Your task to perform on an android device: turn on bluetooth scan Image 0: 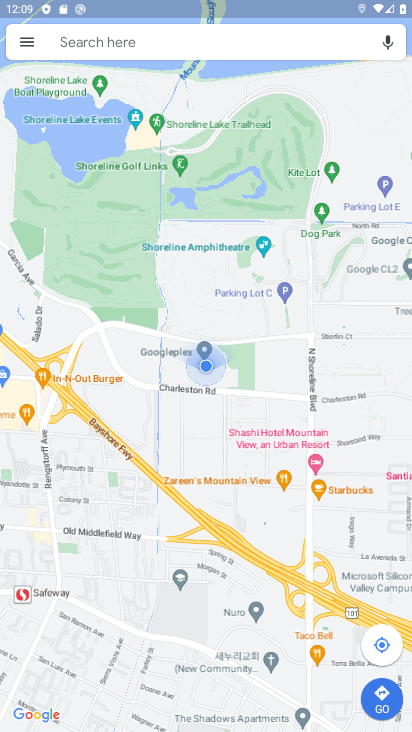
Step 0: press home button
Your task to perform on an android device: turn on bluetooth scan Image 1: 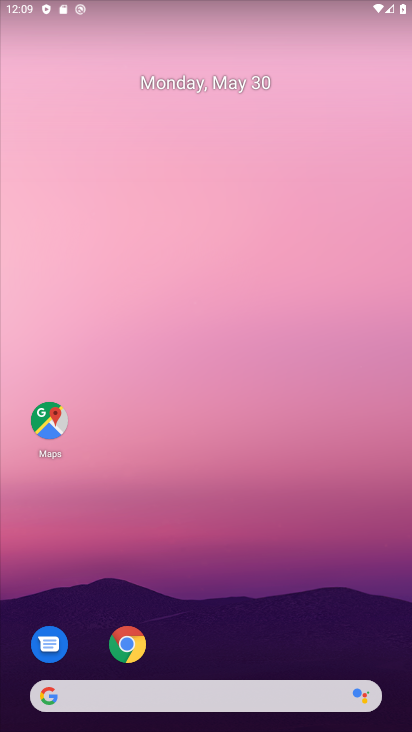
Step 1: drag from (212, 651) to (247, 82)
Your task to perform on an android device: turn on bluetooth scan Image 2: 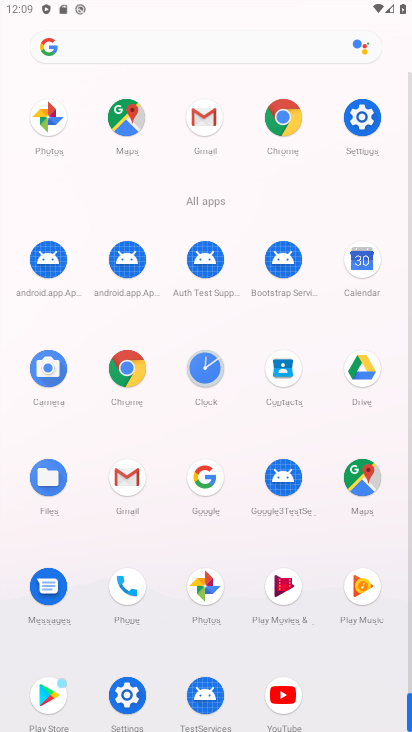
Step 2: drag from (188, 610) to (229, 386)
Your task to perform on an android device: turn on bluetooth scan Image 3: 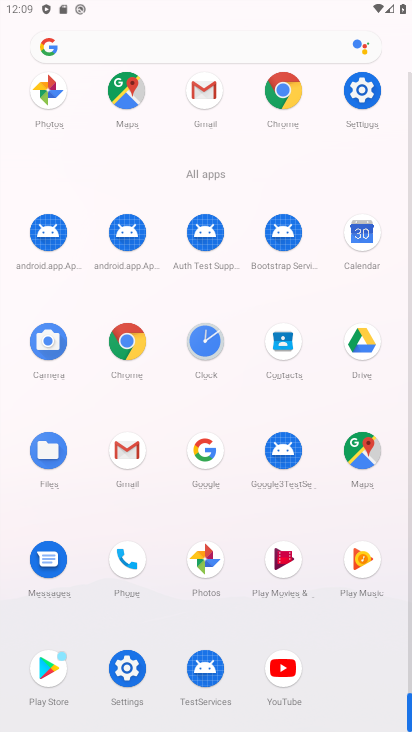
Step 3: click (134, 673)
Your task to perform on an android device: turn on bluetooth scan Image 4: 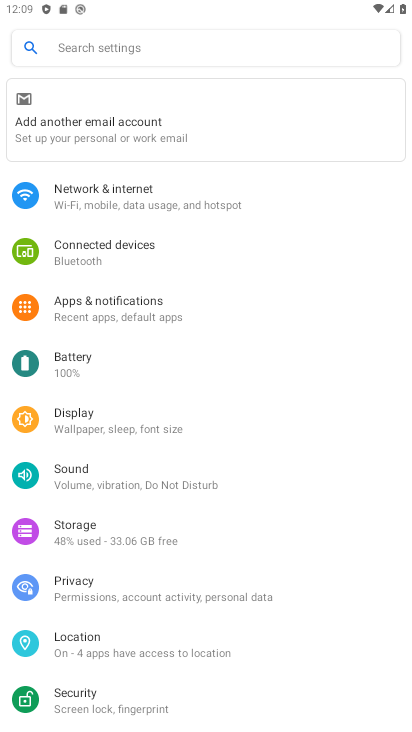
Step 4: click (165, 252)
Your task to perform on an android device: turn on bluetooth scan Image 5: 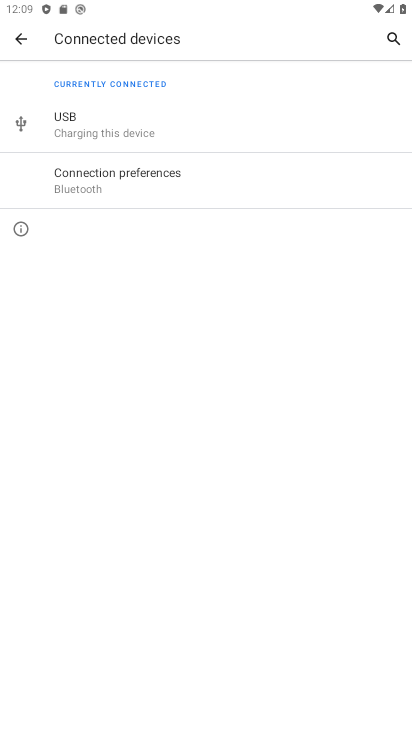
Step 5: click (183, 175)
Your task to perform on an android device: turn on bluetooth scan Image 6: 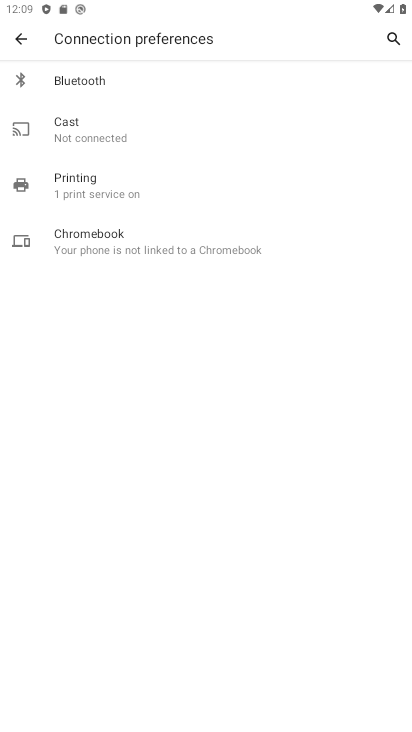
Step 6: click (160, 81)
Your task to perform on an android device: turn on bluetooth scan Image 7: 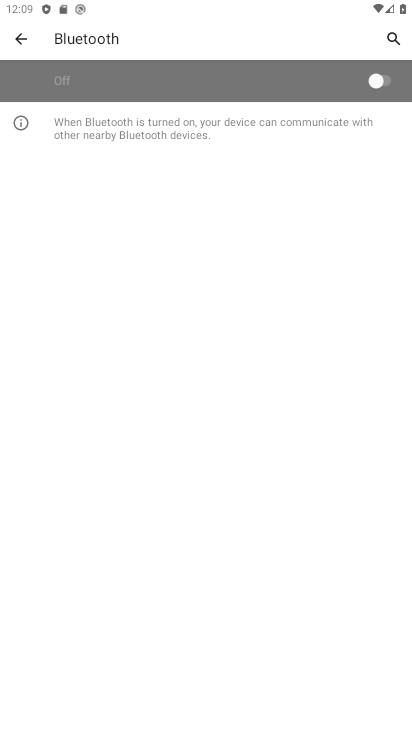
Step 7: click (382, 74)
Your task to perform on an android device: turn on bluetooth scan Image 8: 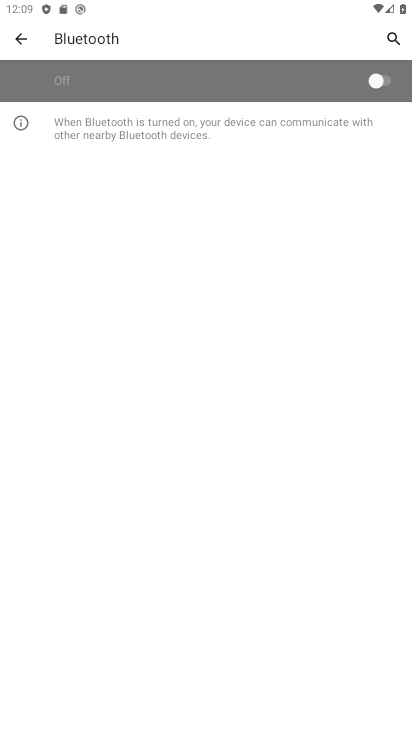
Step 8: click (384, 72)
Your task to perform on an android device: turn on bluetooth scan Image 9: 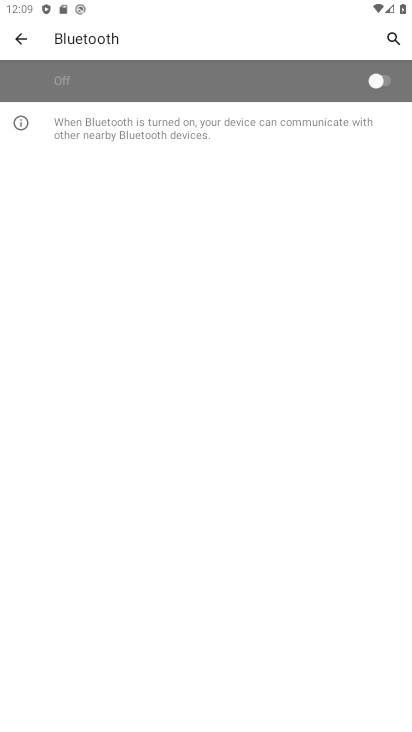
Step 9: click (384, 72)
Your task to perform on an android device: turn on bluetooth scan Image 10: 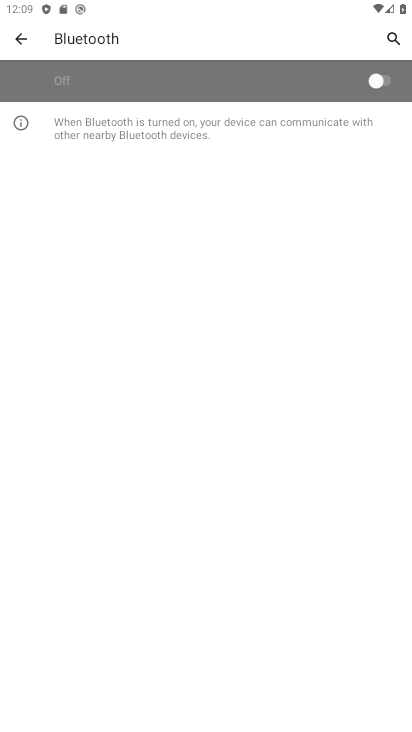
Step 10: task complete